Your task to perform on an android device: change alarm snooze length Image 0: 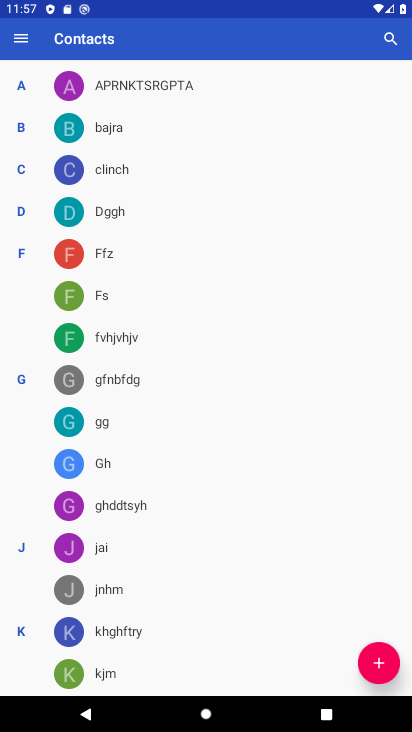
Step 0: press home button
Your task to perform on an android device: change alarm snooze length Image 1: 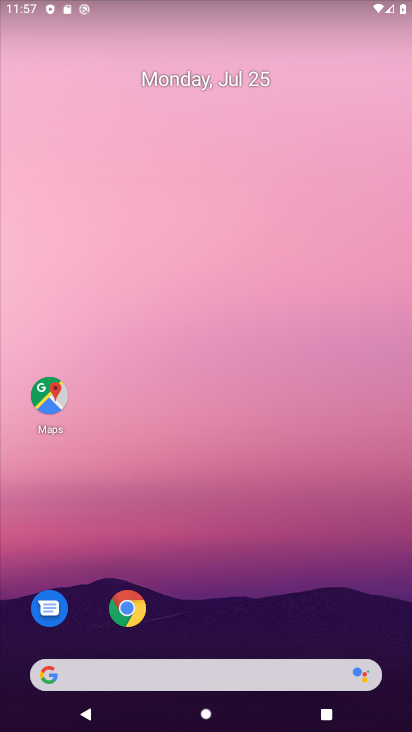
Step 1: drag from (228, 579) to (253, 197)
Your task to perform on an android device: change alarm snooze length Image 2: 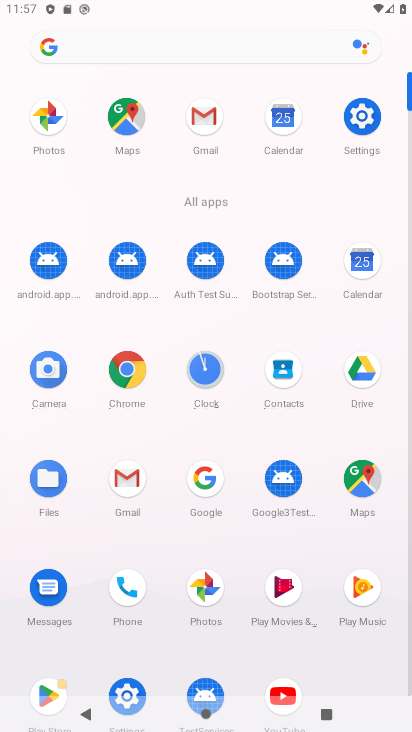
Step 2: click (209, 367)
Your task to perform on an android device: change alarm snooze length Image 3: 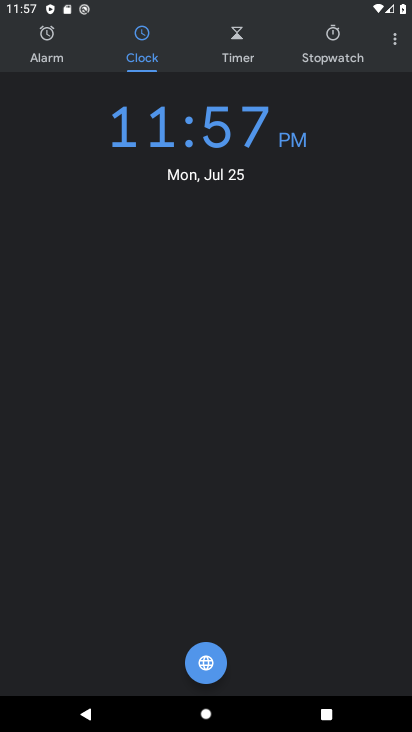
Step 3: click (395, 47)
Your task to perform on an android device: change alarm snooze length Image 4: 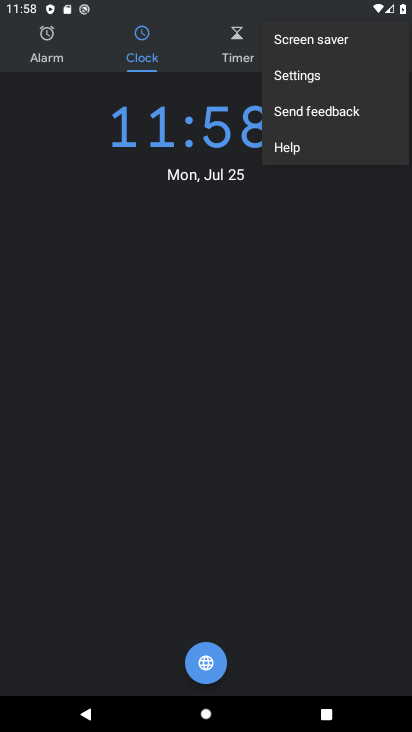
Step 4: click (311, 77)
Your task to perform on an android device: change alarm snooze length Image 5: 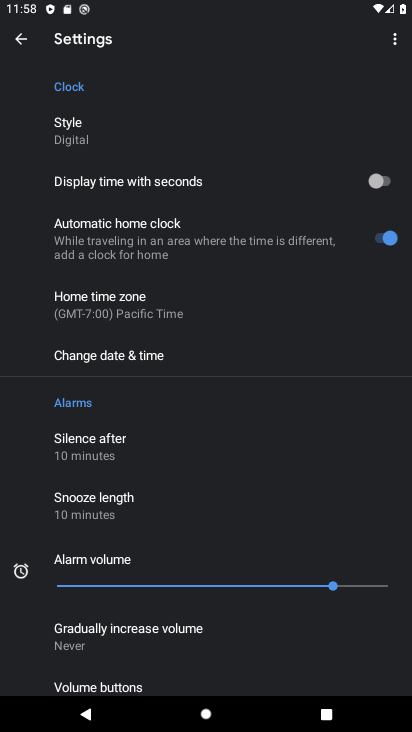
Step 5: click (116, 515)
Your task to perform on an android device: change alarm snooze length Image 6: 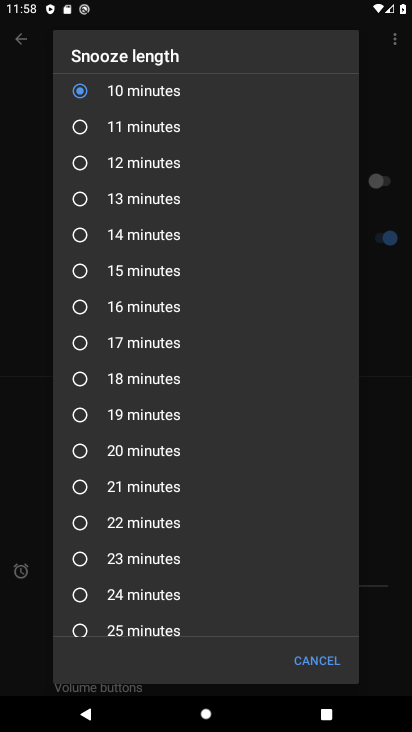
Step 6: click (78, 452)
Your task to perform on an android device: change alarm snooze length Image 7: 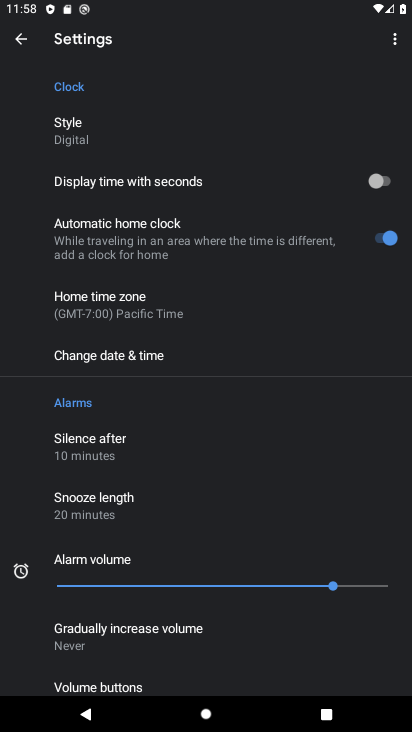
Step 7: task complete